Your task to perform on an android device: toggle javascript in the chrome app Image 0: 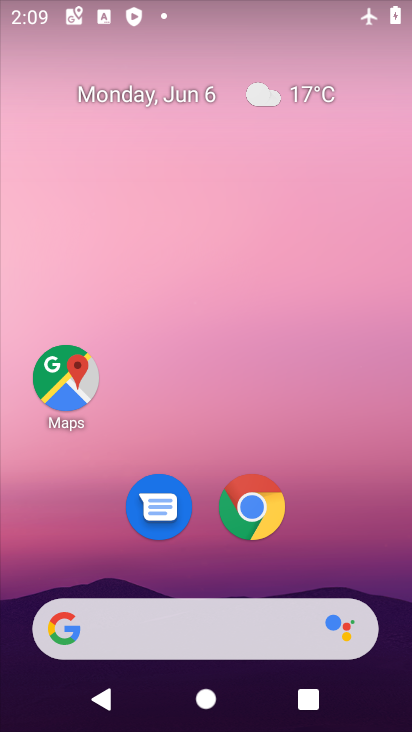
Step 0: click (252, 506)
Your task to perform on an android device: toggle javascript in the chrome app Image 1: 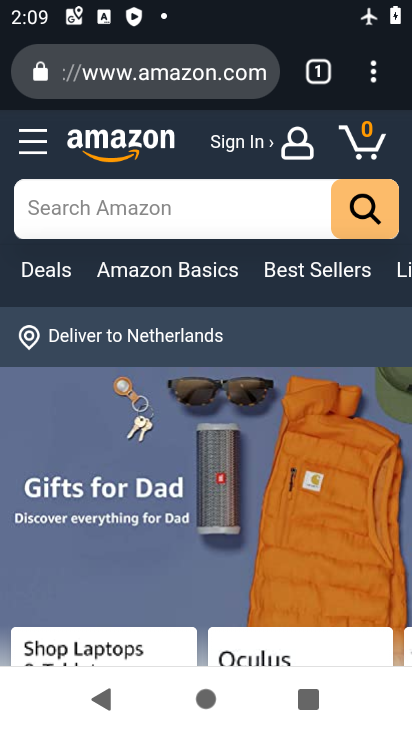
Step 1: drag from (261, 521) to (312, 608)
Your task to perform on an android device: toggle javascript in the chrome app Image 2: 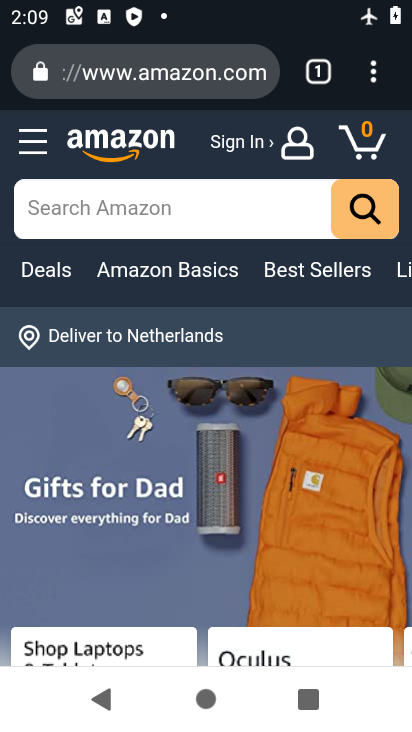
Step 2: click (373, 84)
Your task to perform on an android device: toggle javascript in the chrome app Image 3: 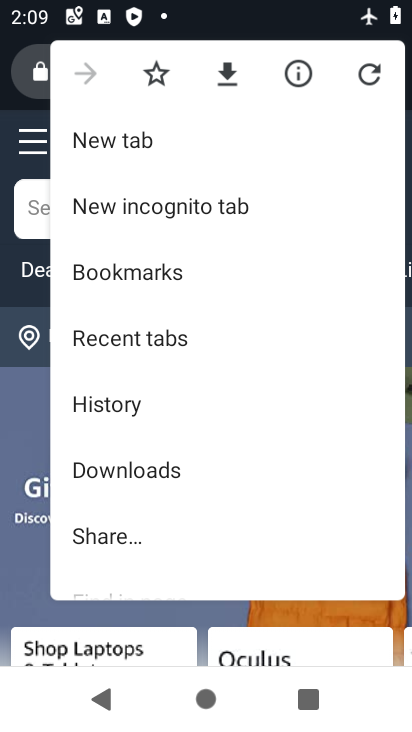
Step 3: drag from (221, 475) to (269, 50)
Your task to perform on an android device: toggle javascript in the chrome app Image 4: 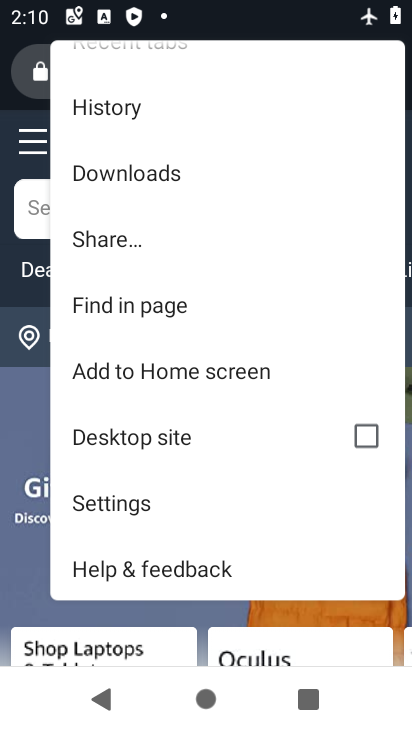
Step 4: click (139, 502)
Your task to perform on an android device: toggle javascript in the chrome app Image 5: 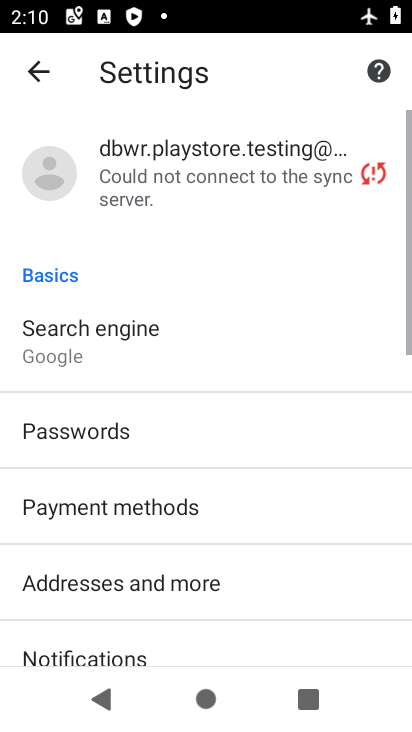
Step 5: drag from (274, 478) to (313, 101)
Your task to perform on an android device: toggle javascript in the chrome app Image 6: 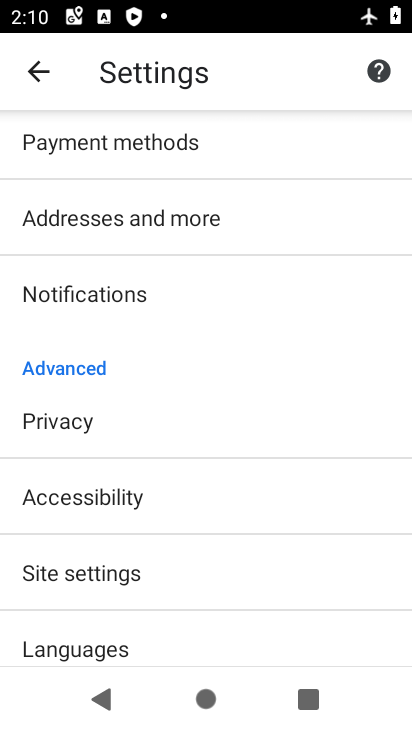
Step 6: click (235, 582)
Your task to perform on an android device: toggle javascript in the chrome app Image 7: 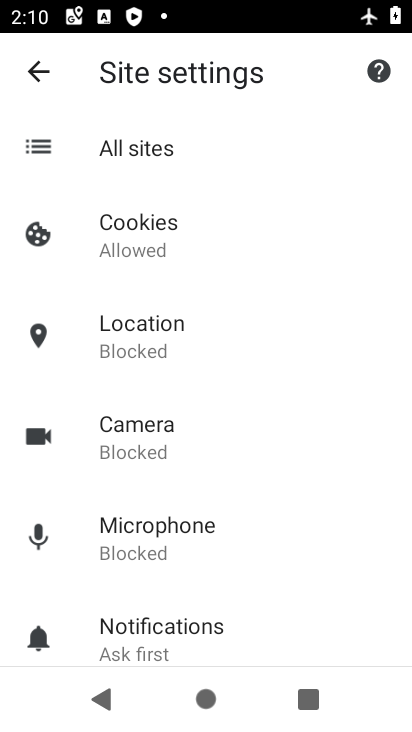
Step 7: drag from (260, 553) to (305, 201)
Your task to perform on an android device: toggle javascript in the chrome app Image 8: 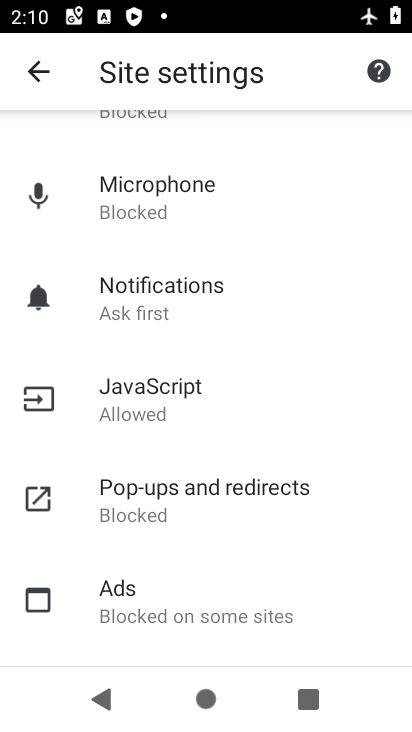
Step 8: click (217, 411)
Your task to perform on an android device: toggle javascript in the chrome app Image 9: 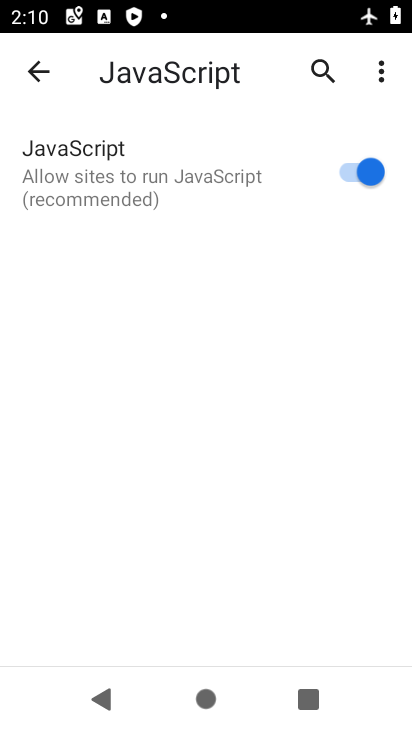
Step 9: click (352, 164)
Your task to perform on an android device: toggle javascript in the chrome app Image 10: 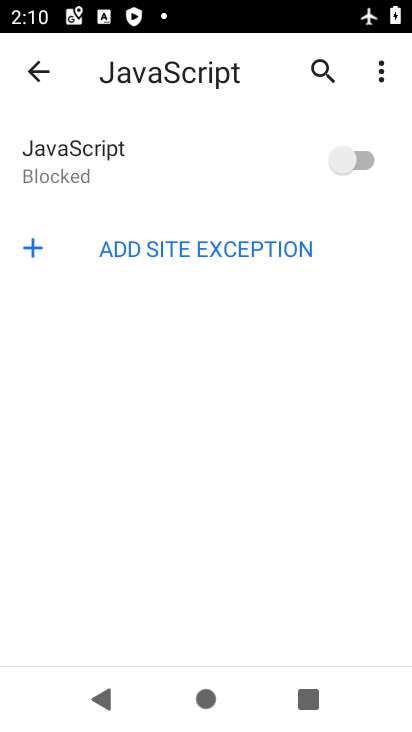
Step 10: task complete